Your task to perform on an android device: When is my next appointment? Image 0: 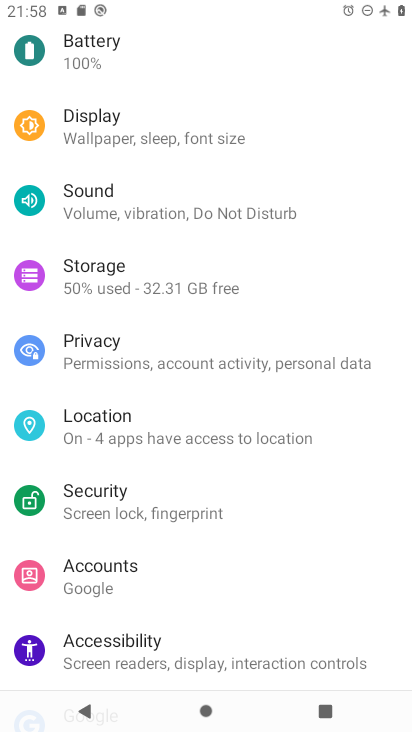
Step 0: press home button
Your task to perform on an android device: When is my next appointment? Image 1: 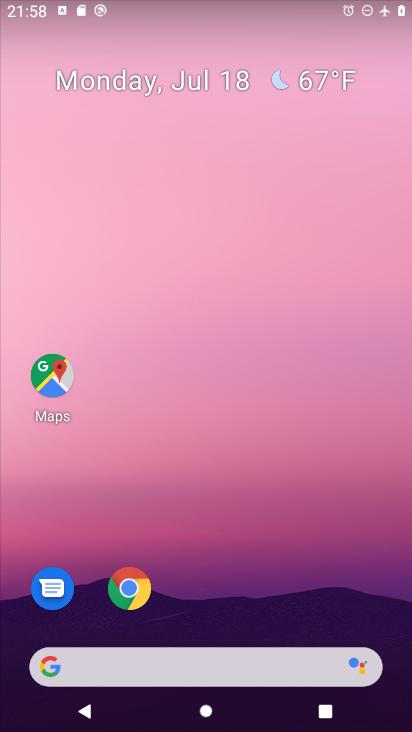
Step 1: drag from (381, 614) to (317, 32)
Your task to perform on an android device: When is my next appointment? Image 2: 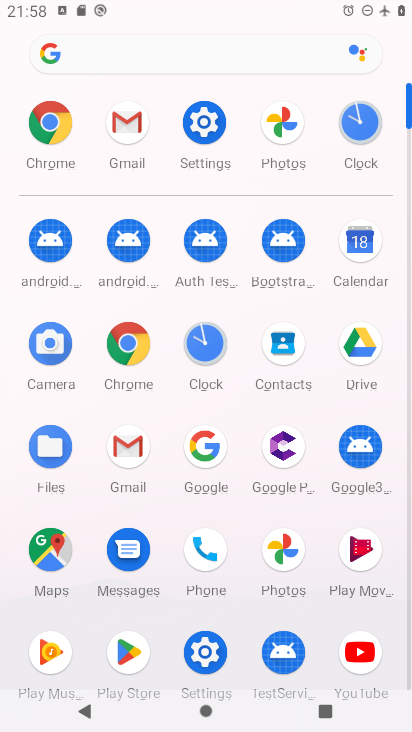
Step 2: click (356, 241)
Your task to perform on an android device: When is my next appointment? Image 3: 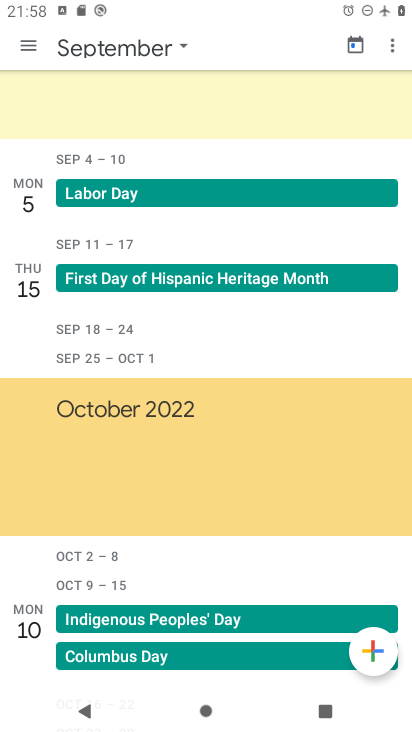
Step 3: task complete